Your task to perform on an android device: See recent photos Image 0: 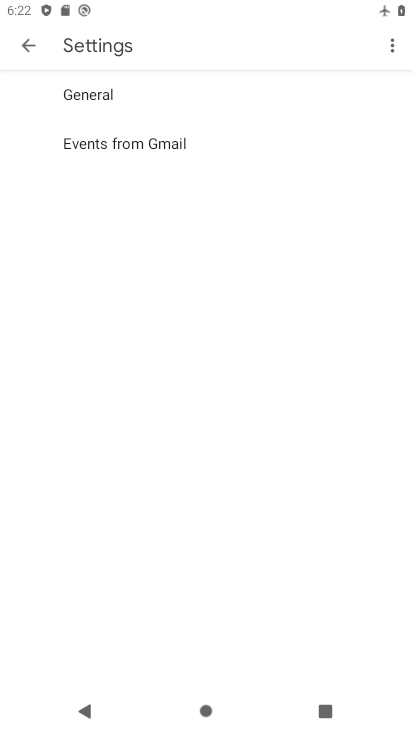
Step 0: press home button
Your task to perform on an android device: See recent photos Image 1: 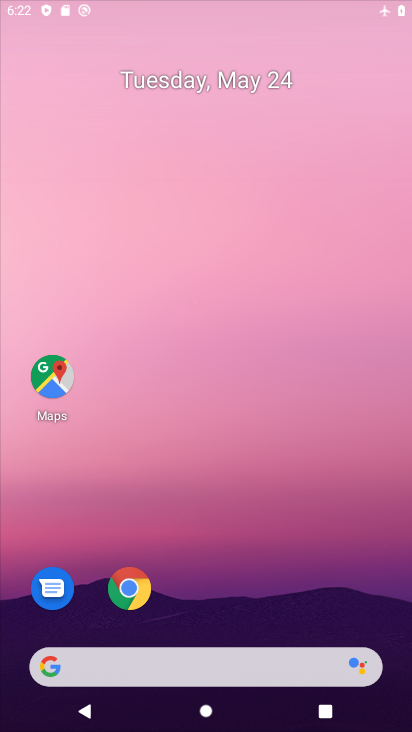
Step 1: drag from (285, 652) to (334, 15)
Your task to perform on an android device: See recent photos Image 2: 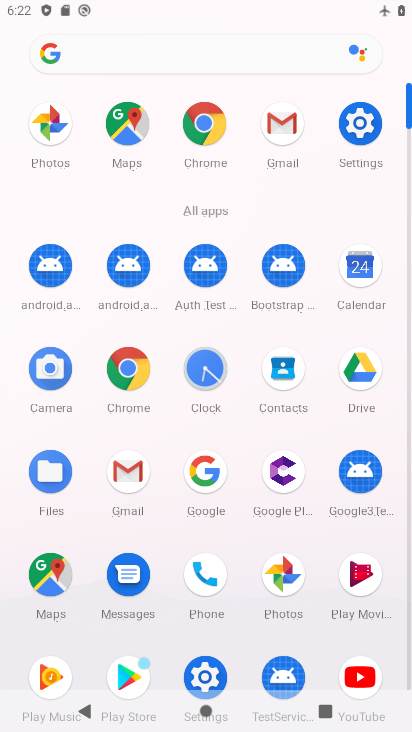
Step 2: click (275, 574)
Your task to perform on an android device: See recent photos Image 3: 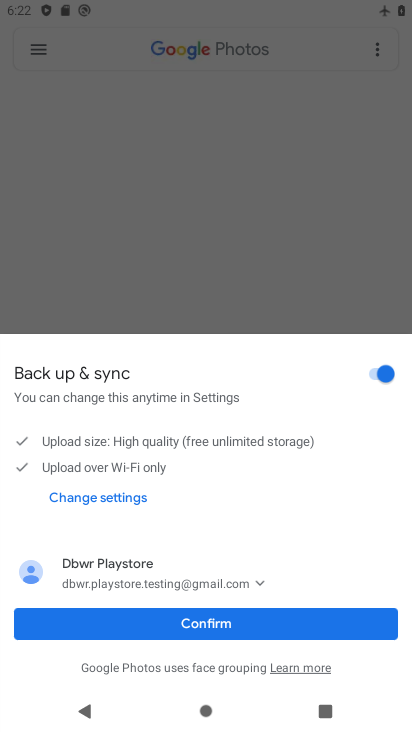
Step 3: click (237, 627)
Your task to perform on an android device: See recent photos Image 4: 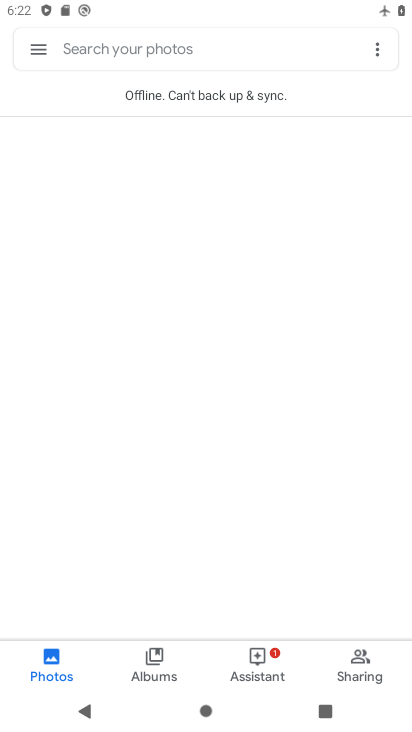
Step 4: task complete